Your task to perform on an android device: turn on the 12-hour format for clock Image 0: 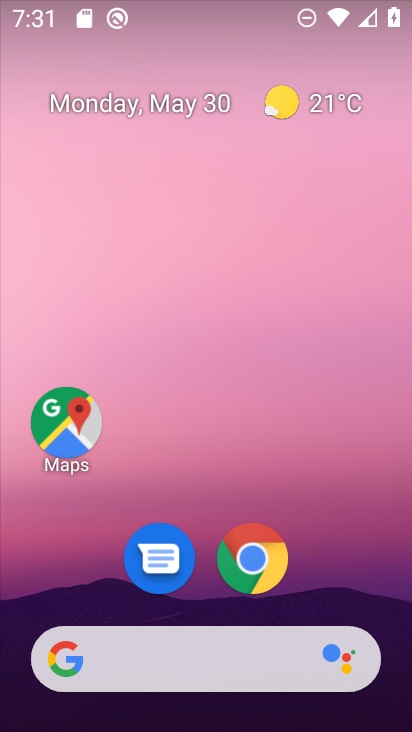
Step 0: drag from (327, 509) to (233, 153)
Your task to perform on an android device: turn on the 12-hour format for clock Image 1: 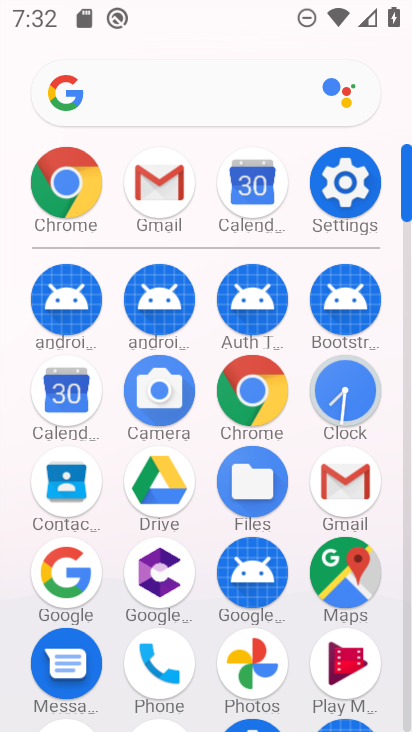
Step 1: click (354, 390)
Your task to perform on an android device: turn on the 12-hour format for clock Image 2: 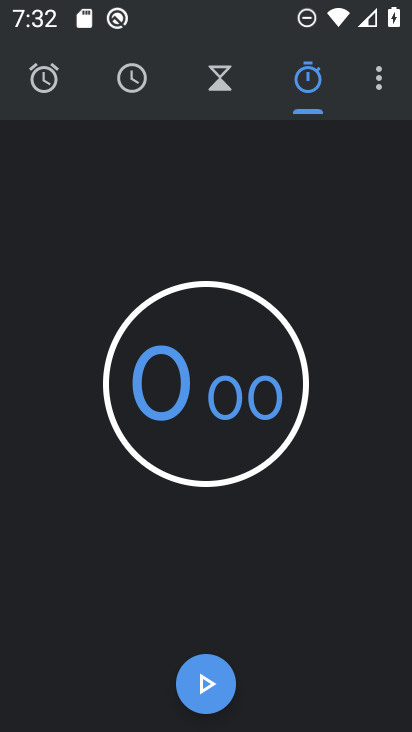
Step 2: click (383, 76)
Your task to perform on an android device: turn on the 12-hour format for clock Image 3: 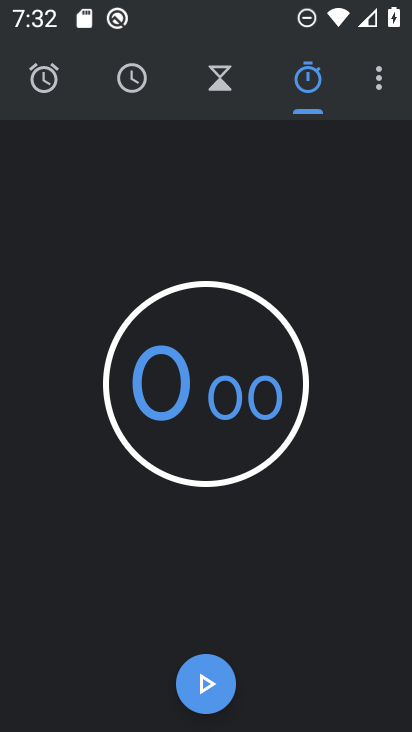
Step 3: click (376, 77)
Your task to perform on an android device: turn on the 12-hour format for clock Image 4: 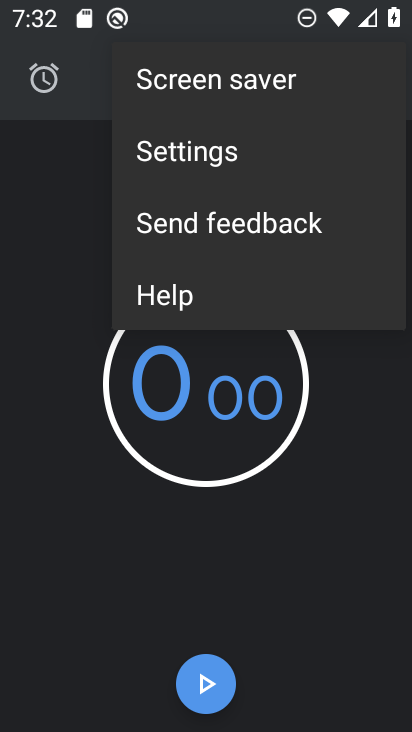
Step 4: click (211, 152)
Your task to perform on an android device: turn on the 12-hour format for clock Image 5: 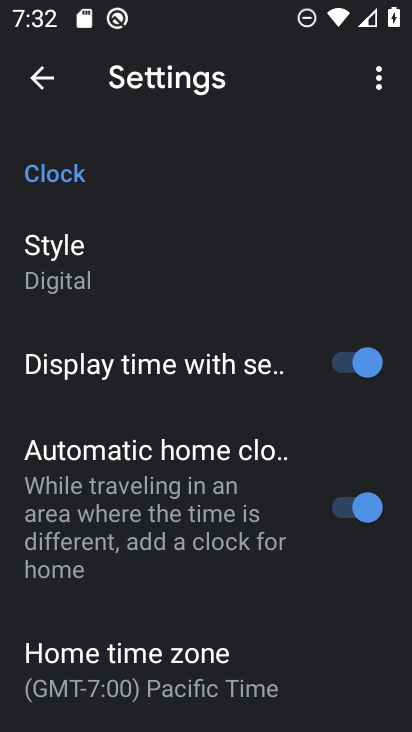
Step 5: drag from (216, 435) to (185, 294)
Your task to perform on an android device: turn on the 12-hour format for clock Image 6: 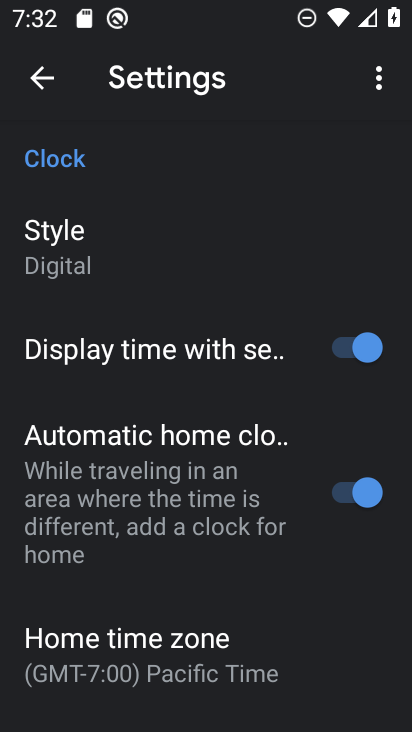
Step 6: drag from (281, 645) to (268, 290)
Your task to perform on an android device: turn on the 12-hour format for clock Image 7: 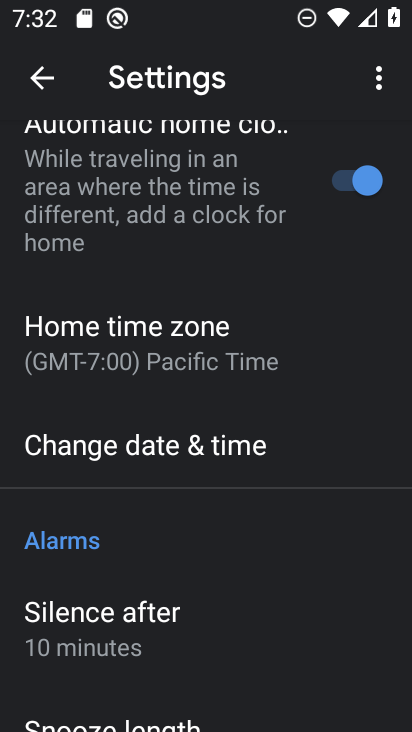
Step 7: click (167, 446)
Your task to perform on an android device: turn on the 12-hour format for clock Image 8: 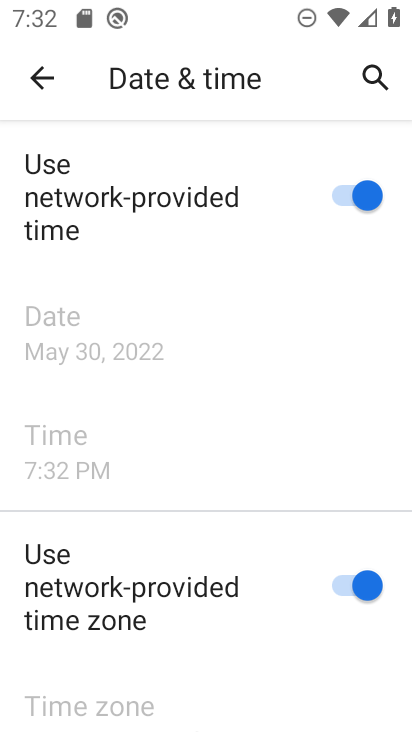
Step 8: task complete